Your task to perform on an android device: change the clock display to analog Image 0: 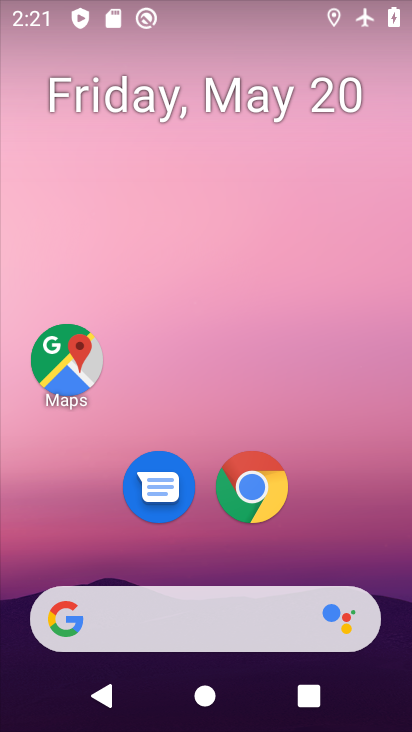
Step 0: drag from (280, 665) to (165, 126)
Your task to perform on an android device: change the clock display to analog Image 1: 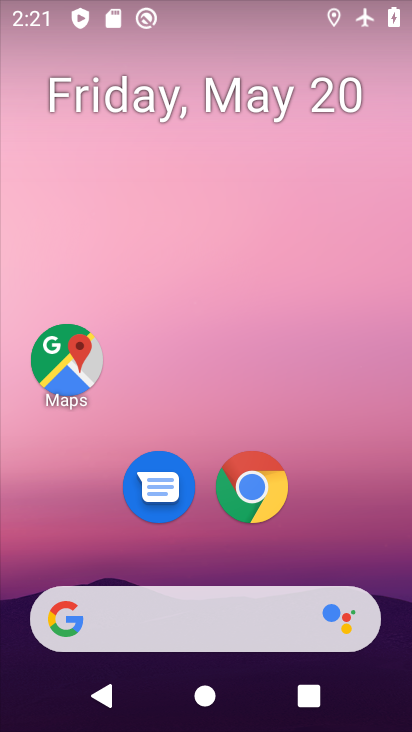
Step 1: drag from (272, 677) to (177, 123)
Your task to perform on an android device: change the clock display to analog Image 2: 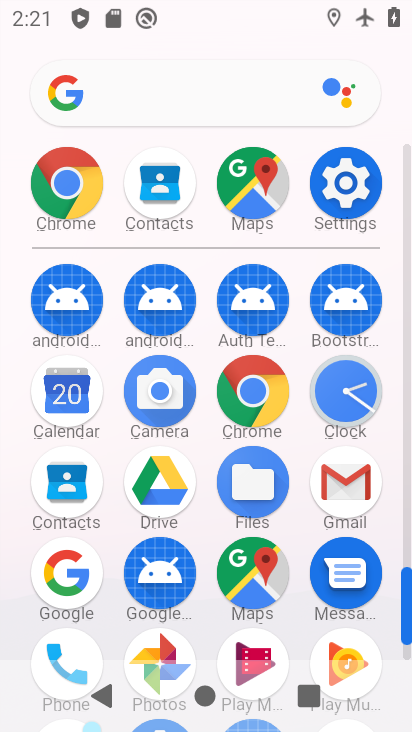
Step 2: drag from (219, 502) to (63, 0)
Your task to perform on an android device: change the clock display to analog Image 3: 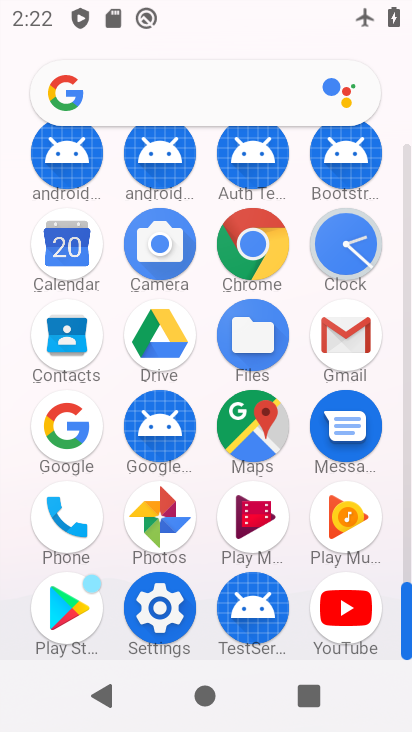
Step 3: click (333, 241)
Your task to perform on an android device: change the clock display to analog Image 4: 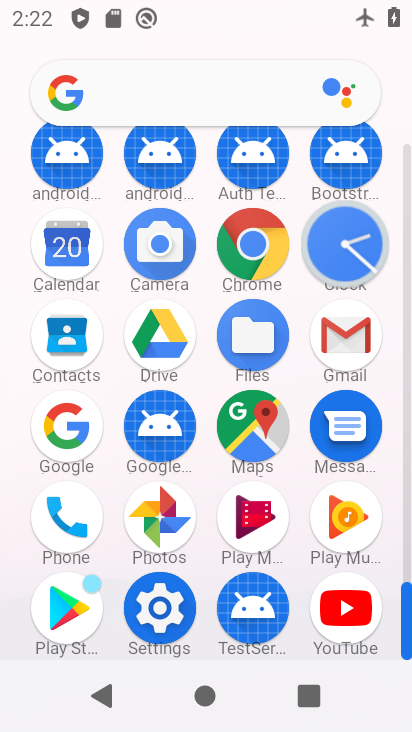
Step 4: click (334, 242)
Your task to perform on an android device: change the clock display to analog Image 5: 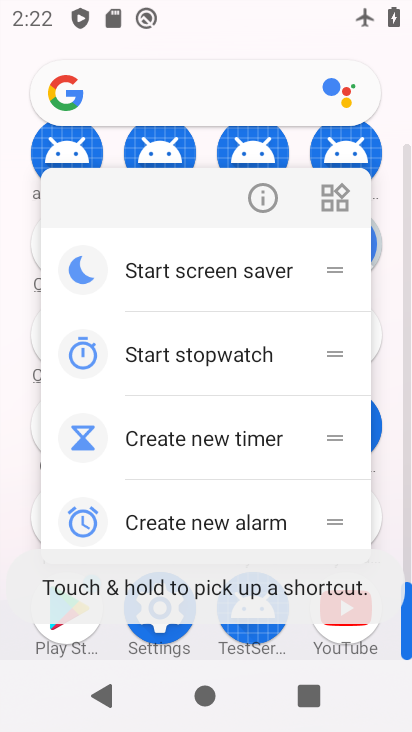
Step 5: click (341, 241)
Your task to perform on an android device: change the clock display to analog Image 6: 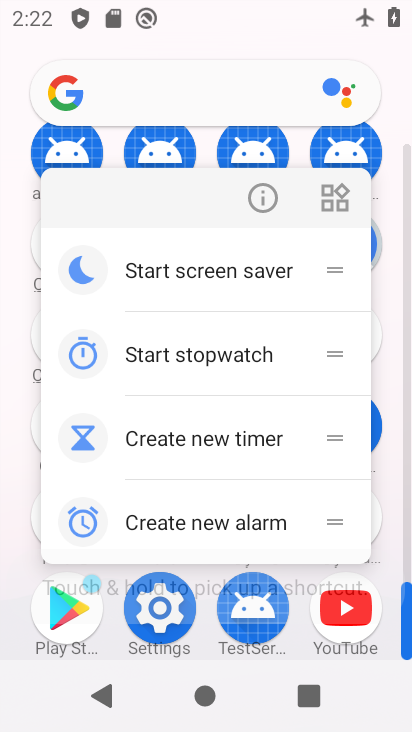
Step 6: click (384, 211)
Your task to perform on an android device: change the clock display to analog Image 7: 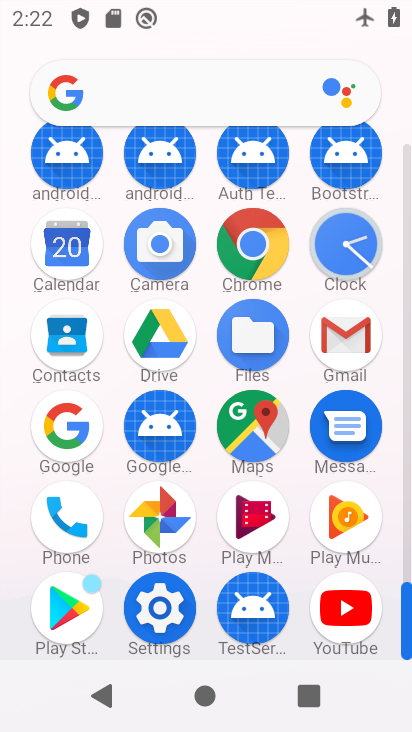
Step 7: click (384, 211)
Your task to perform on an android device: change the clock display to analog Image 8: 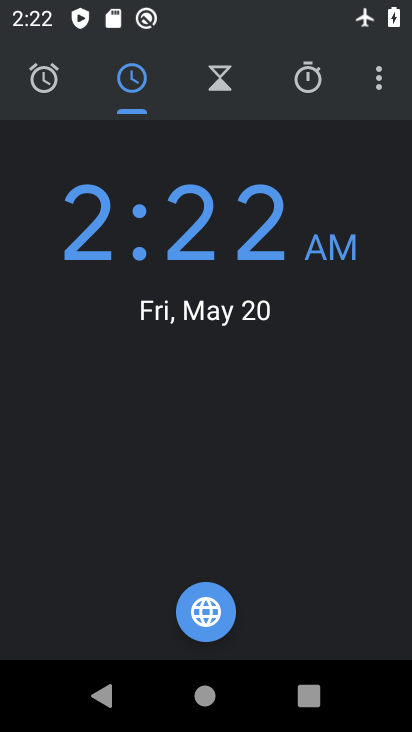
Step 8: click (367, 80)
Your task to perform on an android device: change the clock display to analog Image 9: 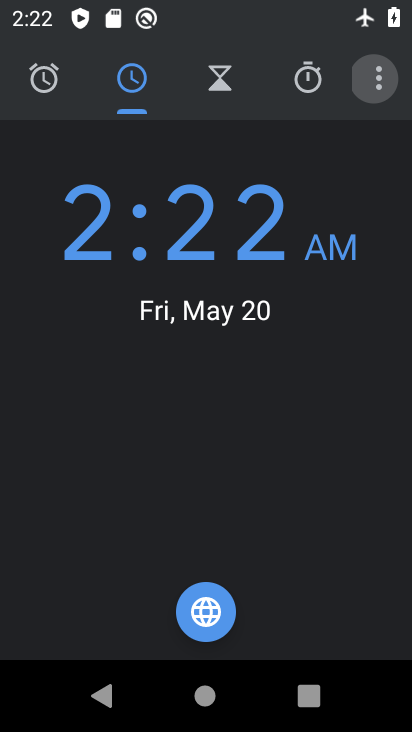
Step 9: click (368, 80)
Your task to perform on an android device: change the clock display to analog Image 10: 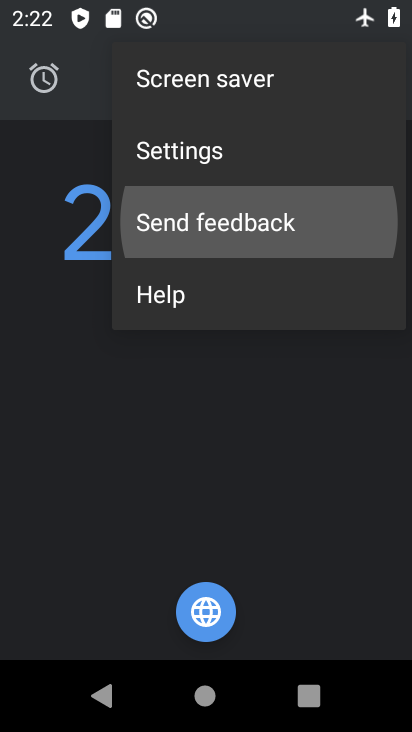
Step 10: click (368, 80)
Your task to perform on an android device: change the clock display to analog Image 11: 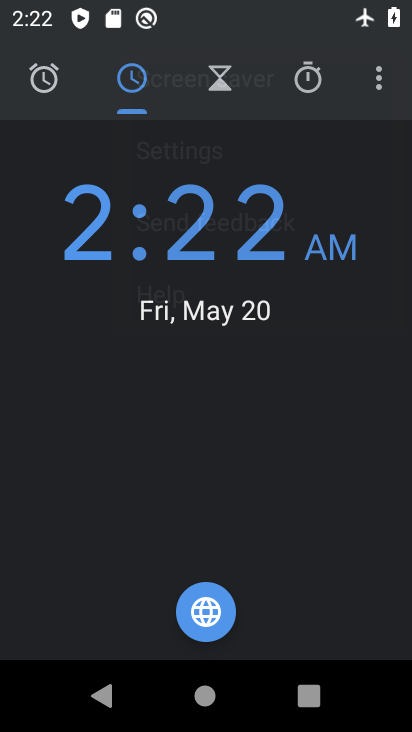
Step 11: click (368, 80)
Your task to perform on an android device: change the clock display to analog Image 12: 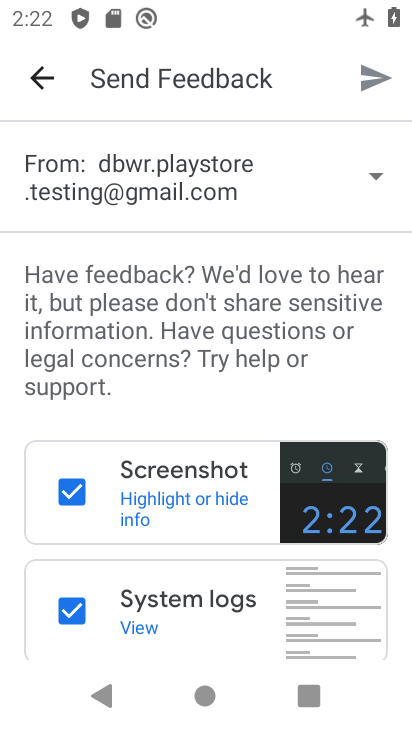
Step 12: click (48, 72)
Your task to perform on an android device: change the clock display to analog Image 13: 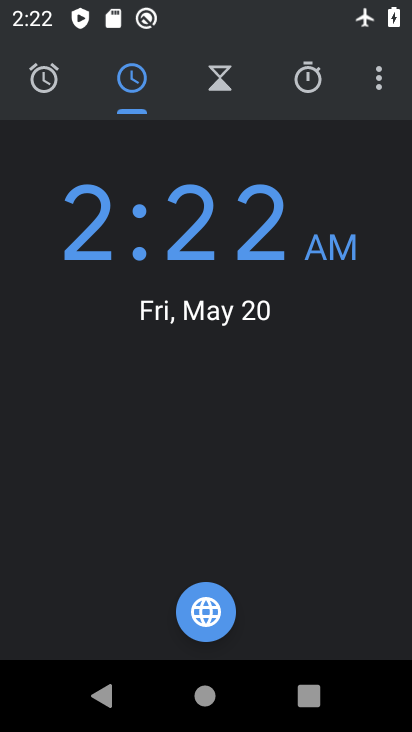
Step 13: click (381, 78)
Your task to perform on an android device: change the clock display to analog Image 14: 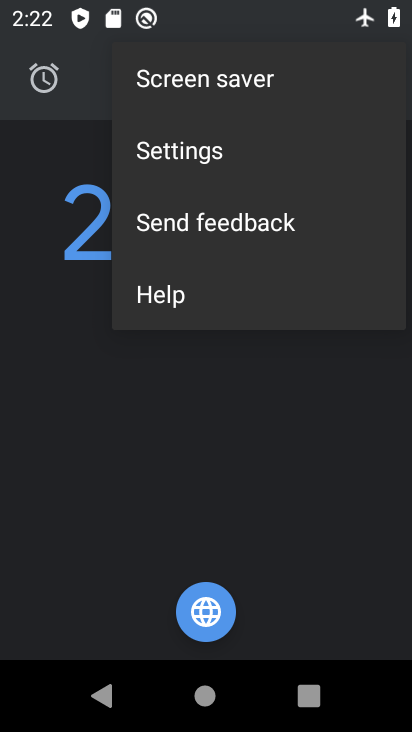
Step 14: click (179, 151)
Your task to perform on an android device: change the clock display to analog Image 15: 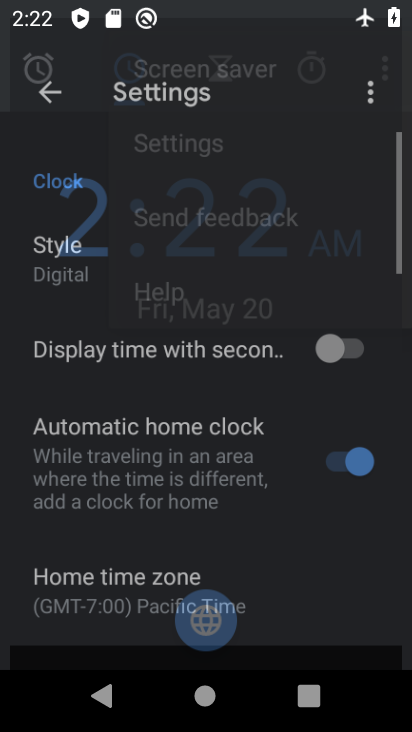
Step 15: click (180, 152)
Your task to perform on an android device: change the clock display to analog Image 16: 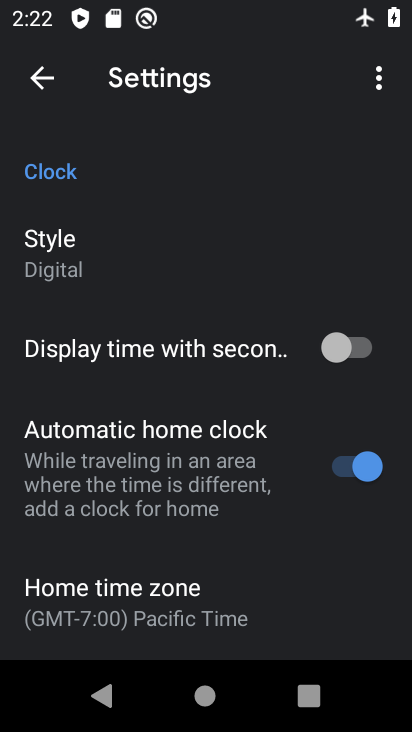
Step 16: click (34, 77)
Your task to perform on an android device: change the clock display to analog Image 17: 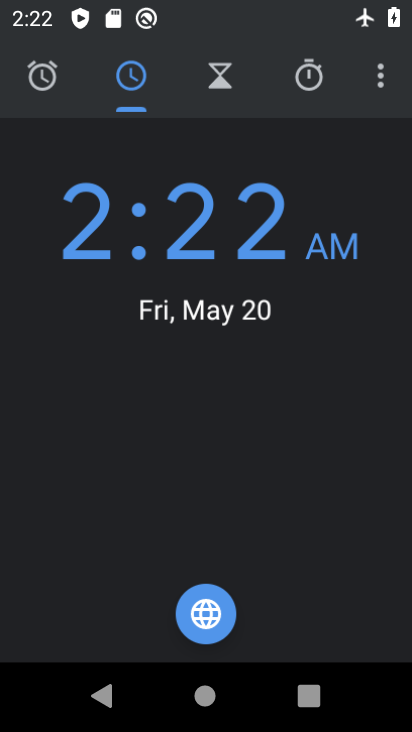
Step 17: click (44, 74)
Your task to perform on an android device: change the clock display to analog Image 18: 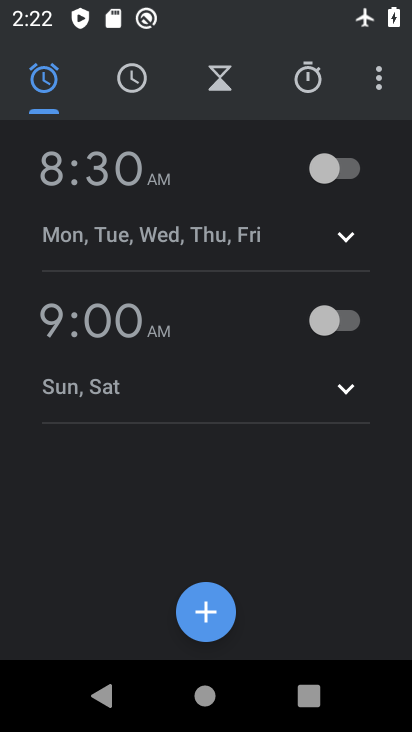
Step 18: drag from (373, 70) to (262, 414)
Your task to perform on an android device: change the clock display to analog Image 19: 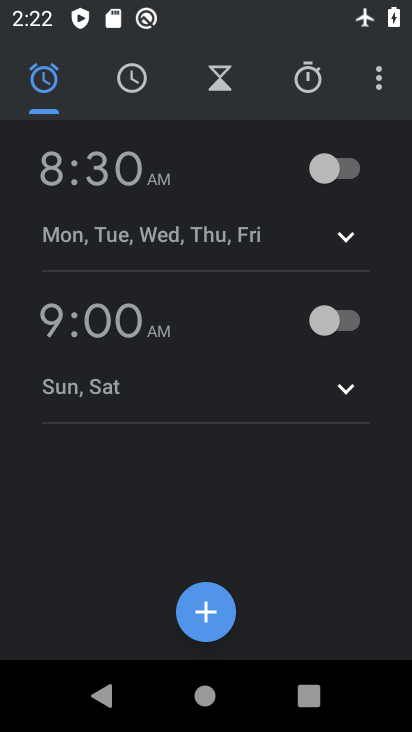
Step 19: click (195, 139)
Your task to perform on an android device: change the clock display to analog Image 20: 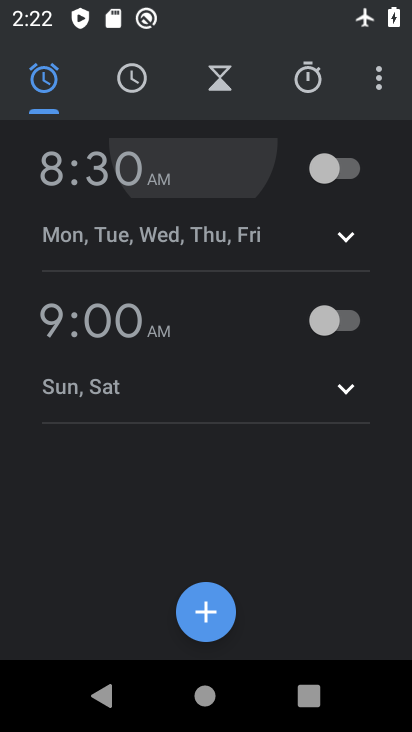
Step 20: click (196, 140)
Your task to perform on an android device: change the clock display to analog Image 21: 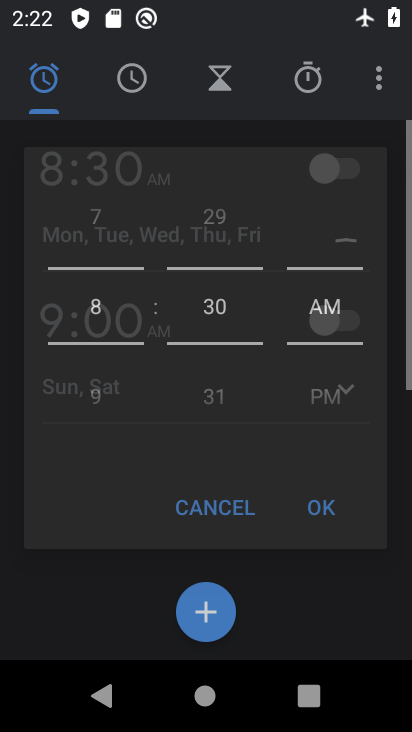
Step 21: click (202, 140)
Your task to perform on an android device: change the clock display to analog Image 22: 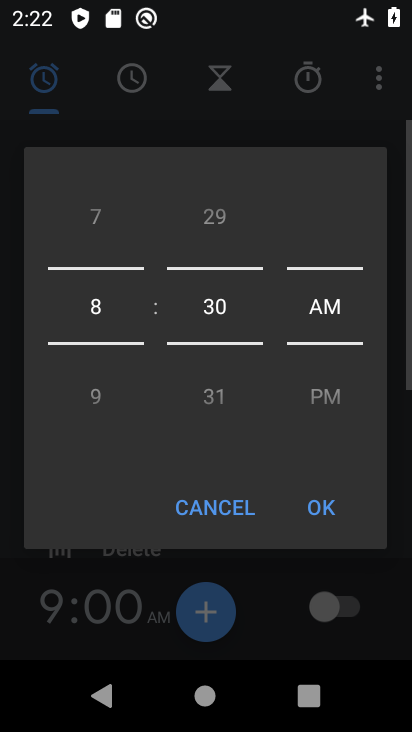
Step 22: click (202, 140)
Your task to perform on an android device: change the clock display to analog Image 23: 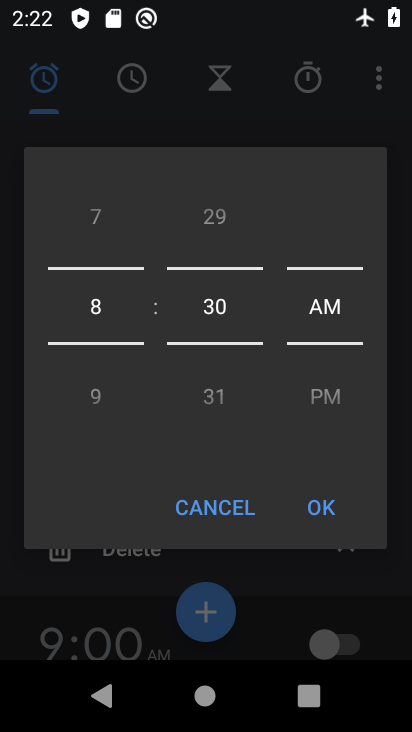
Step 23: click (221, 514)
Your task to perform on an android device: change the clock display to analog Image 24: 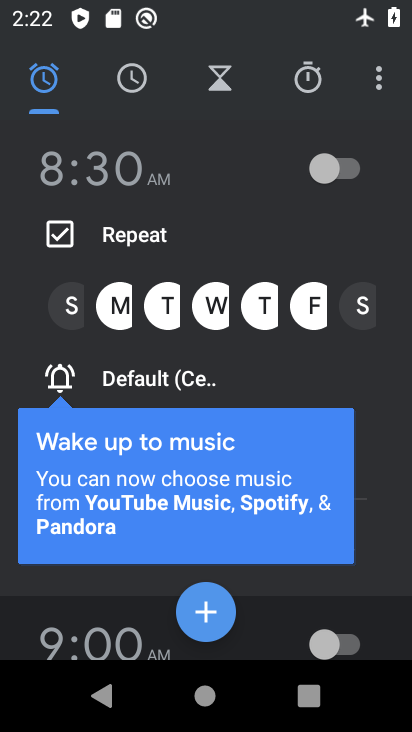
Step 24: click (372, 80)
Your task to perform on an android device: change the clock display to analog Image 25: 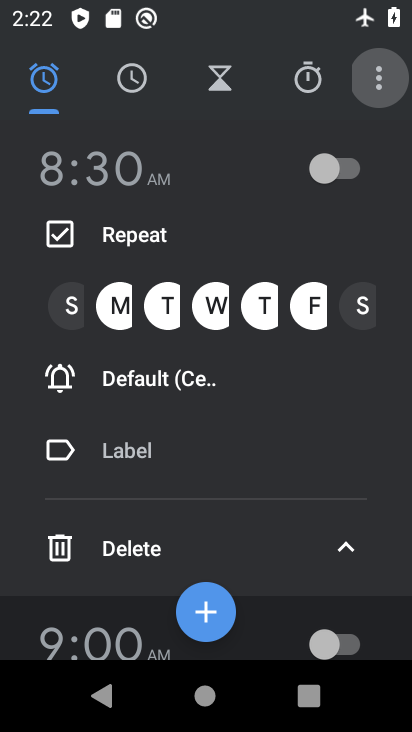
Step 25: click (370, 81)
Your task to perform on an android device: change the clock display to analog Image 26: 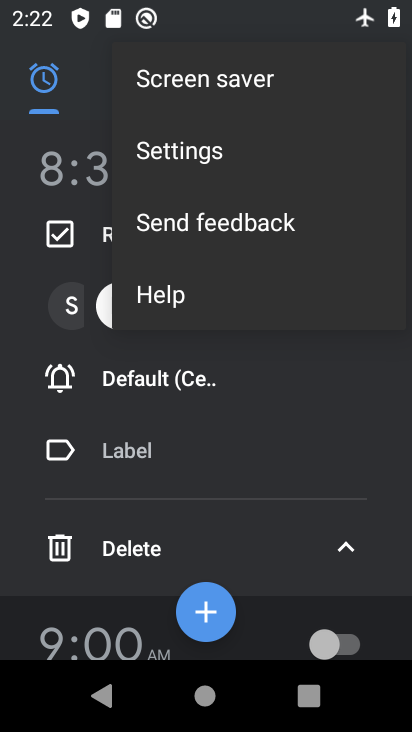
Step 26: click (370, 82)
Your task to perform on an android device: change the clock display to analog Image 27: 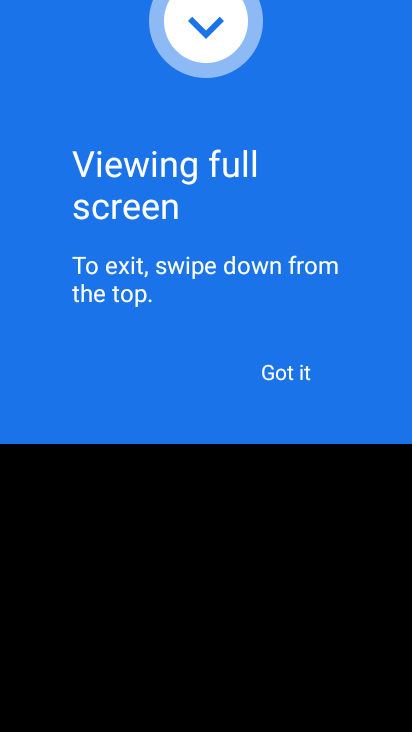
Step 27: click (277, 369)
Your task to perform on an android device: change the clock display to analog Image 28: 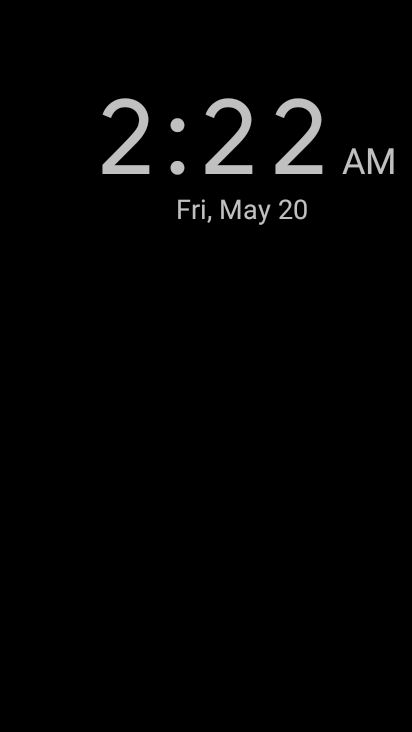
Step 28: press back button
Your task to perform on an android device: change the clock display to analog Image 29: 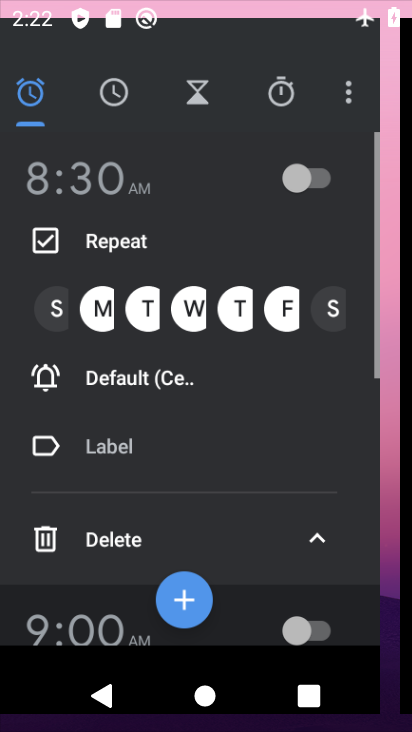
Step 29: drag from (219, 451) to (147, 6)
Your task to perform on an android device: change the clock display to analog Image 30: 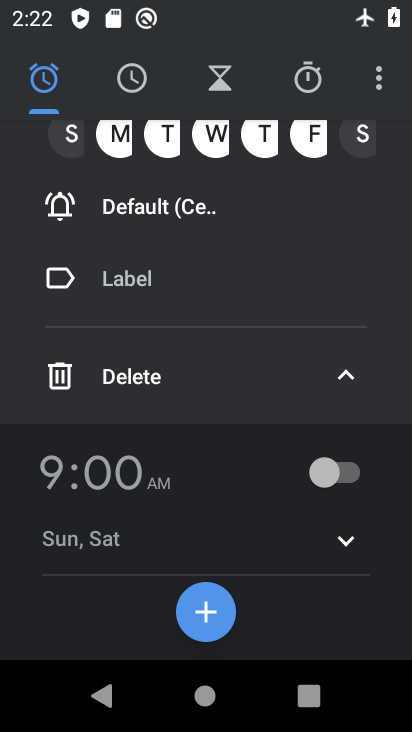
Step 30: click (376, 74)
Your task to perform on an android device: change the clock display to analog Image 31: 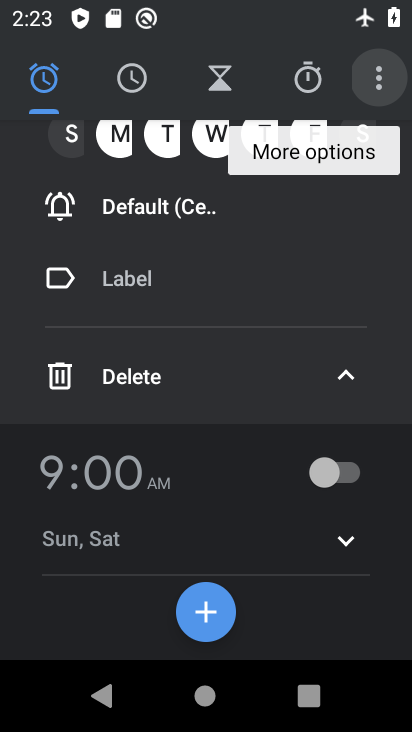
Step 31: click (376, 74)
Your task to perform on an android device: change the clock display to analog Image 32: 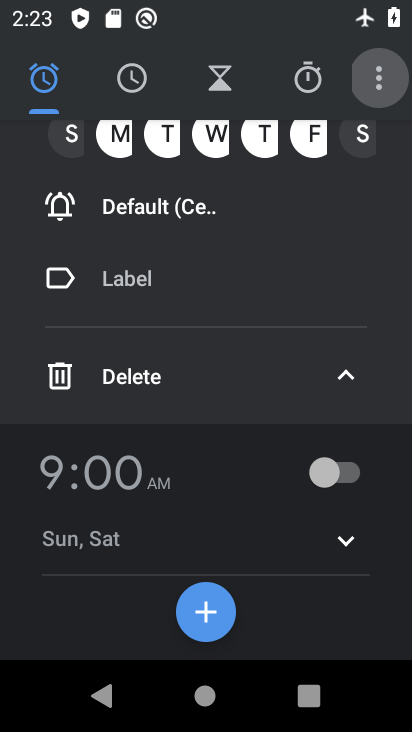
Step 32: click (376, 74)
Your task to perform on an android device: change the clock display to analog Image 33: 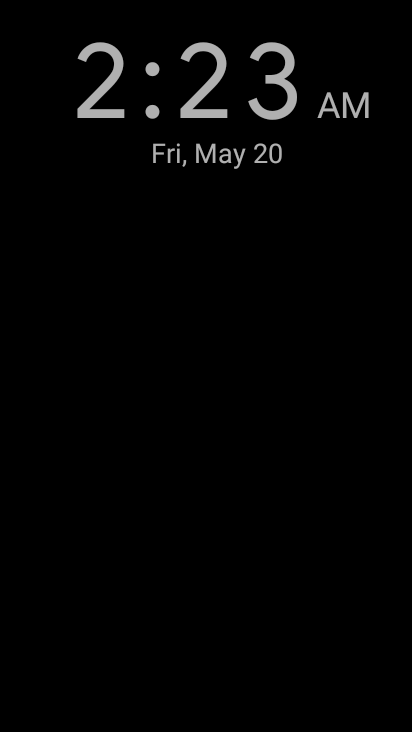
Step 33: press back button
Your task to perform on an android device: change the clock display to analog Image 34: 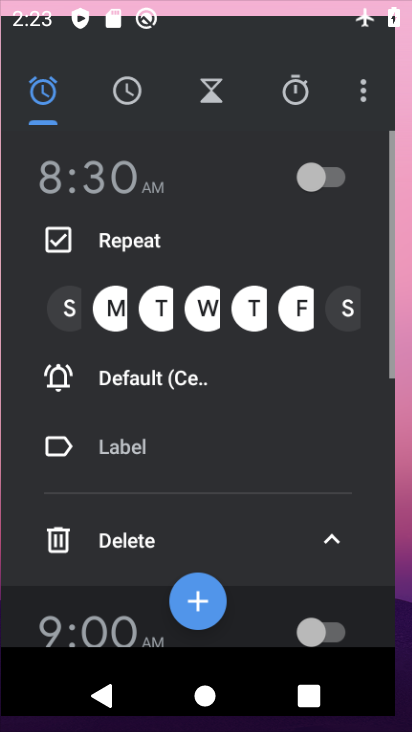
Step 34: drag from (269, 548) to (203, 135)
Your task to perform on an android device: change the clock display to analog Image 35: 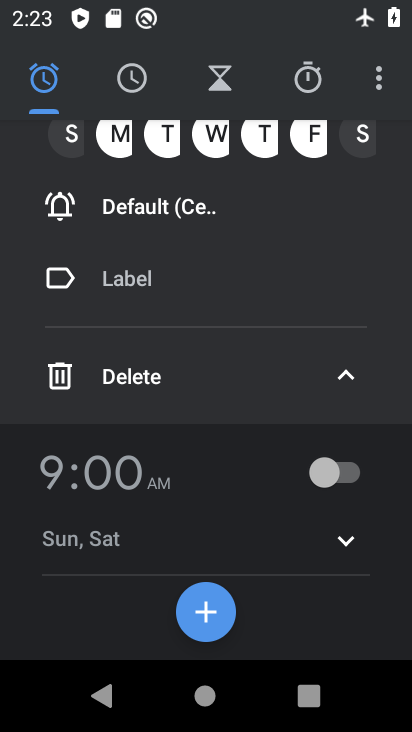
Step 35: click (383, 77)
Your task to perform on an android device: change the clock display to analog Image 36: 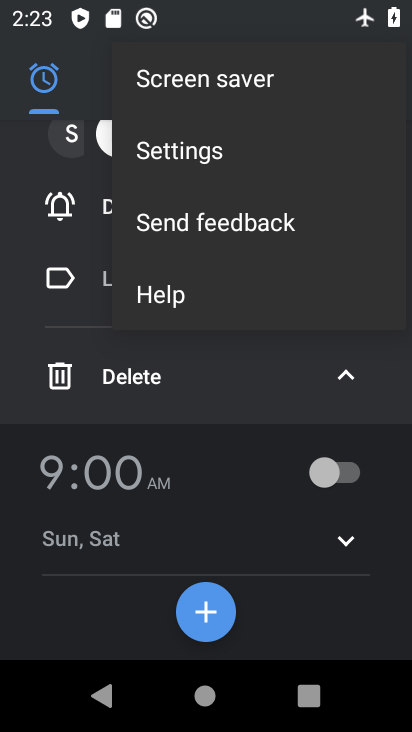
Step 36: click (180, 164)
Your task to perform on an android device: change the clock display to analog Image 37: 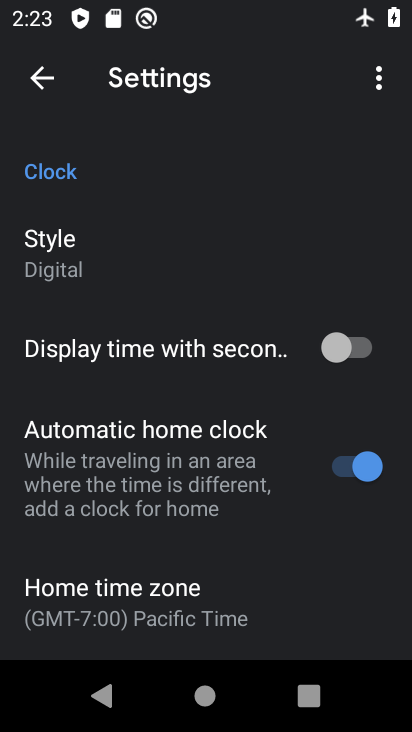
Step 37: click (110, 257)
Your task to perform on an android device: change the clock display to analog Image 38: 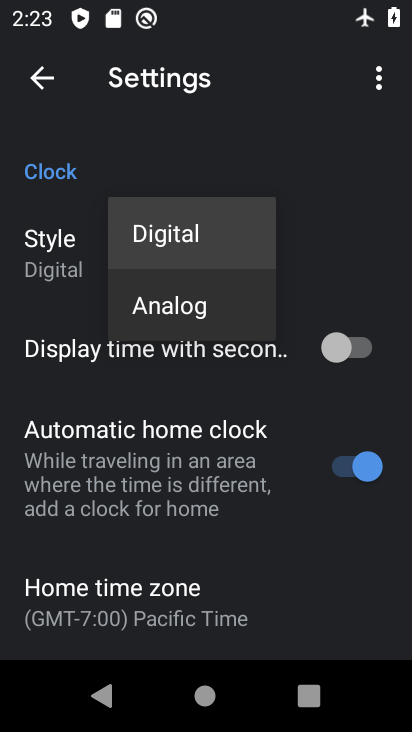
Step 38: click (173, 316)
Your task to perform on an android device: change the clock display to analog Image 39: 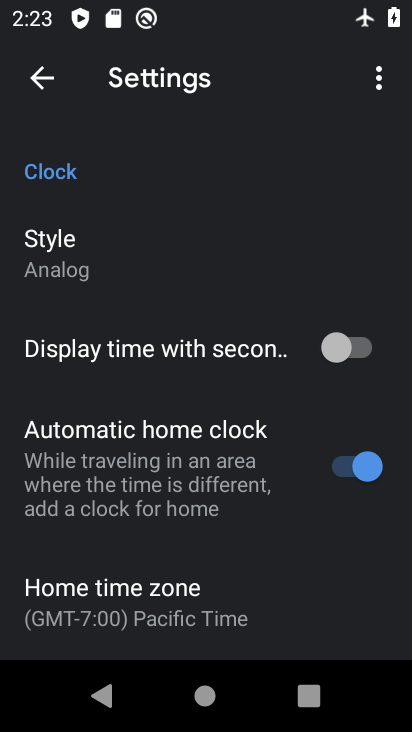
Step 39: task complete